Your task to perform on an android device: Open Chrome and go to settings Image 0: 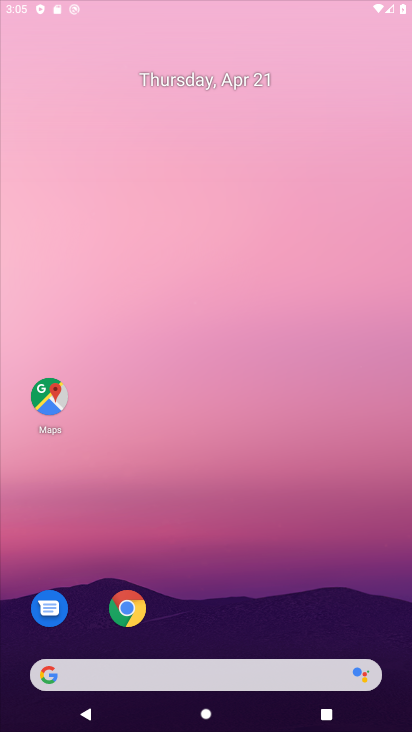
Step 0: click (259, 155)
Your task to perform on an android device: Open Chrome and go to settings Image 1: 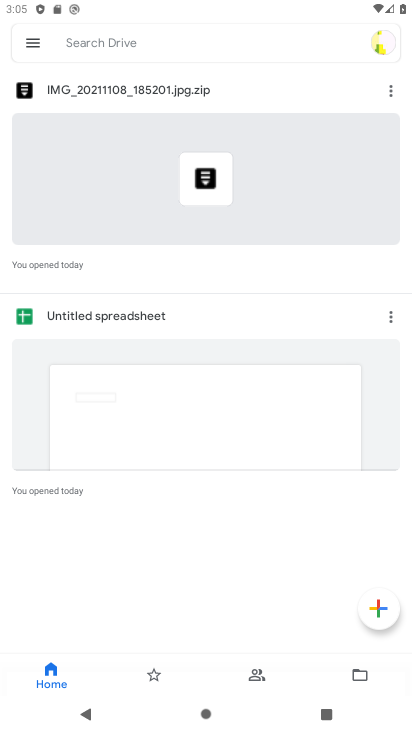
Step 1: press home button
Your task to perform on an android device: Open Chrome and go to settings Image 2: 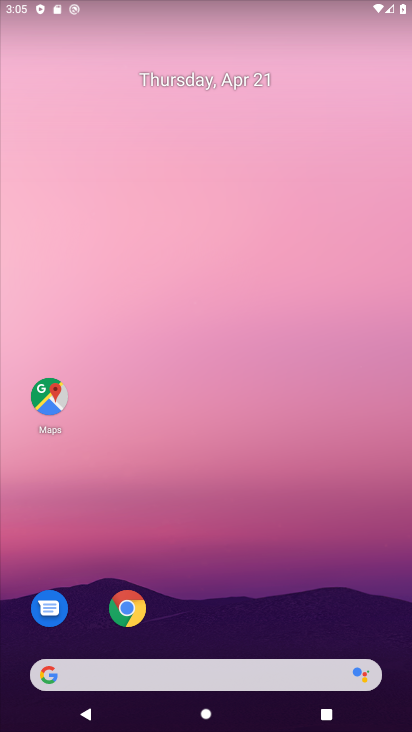
Step 2: drag from (272, 569) to (313, 249)
Your task to perform on an android device: Open Chrome and go to settings Image 3: 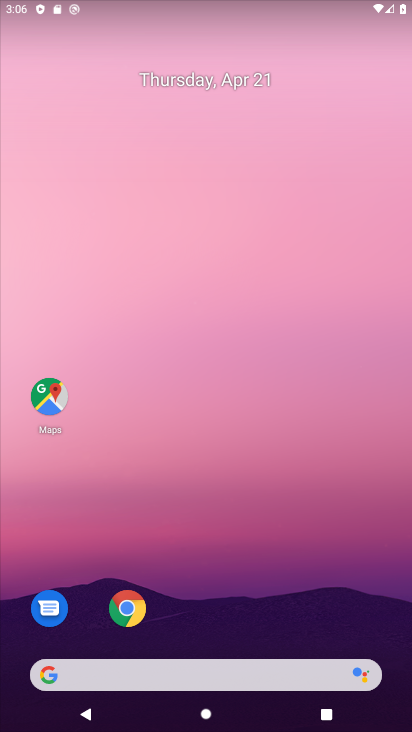
Step 3: drag from (248, 581) to (265, 129)
Your task to perform on an android device: Open Chrome and go to settings Image 4: 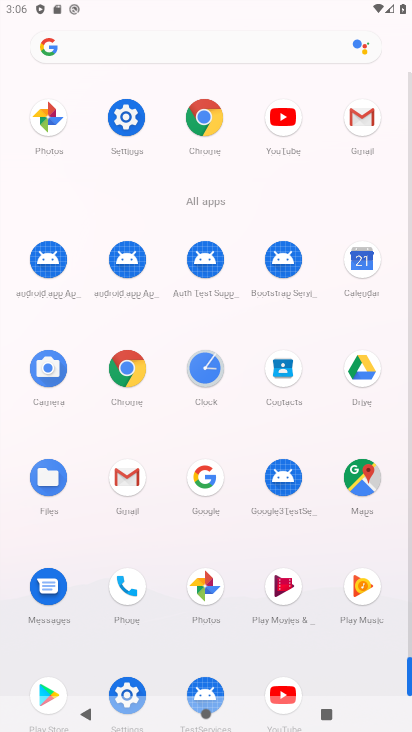
Step 4: click (198, 141)
Your task to perform on an android device: Open Chrome and go to settings Image 5: 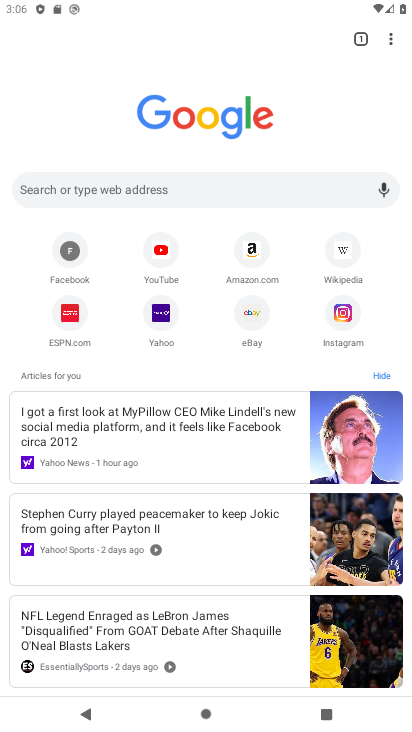
Step 5: click (388, 44)
Your task to perform on an android device: Open Chrome and go to settings Image 6: 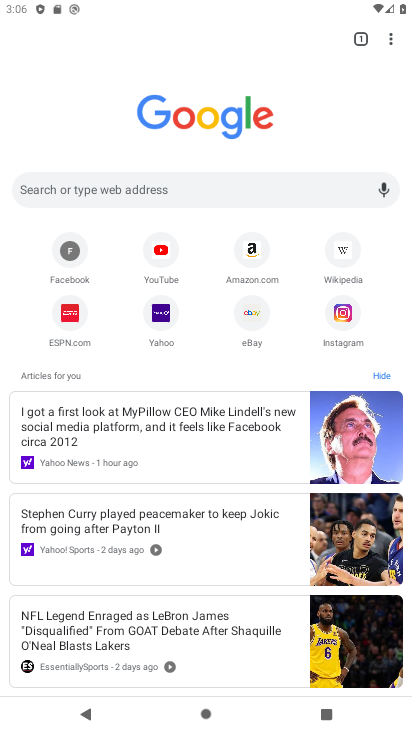
Step 6: click (394, 41)
Your task to perform on an android device: Open Chrome and go to settings Image 7: 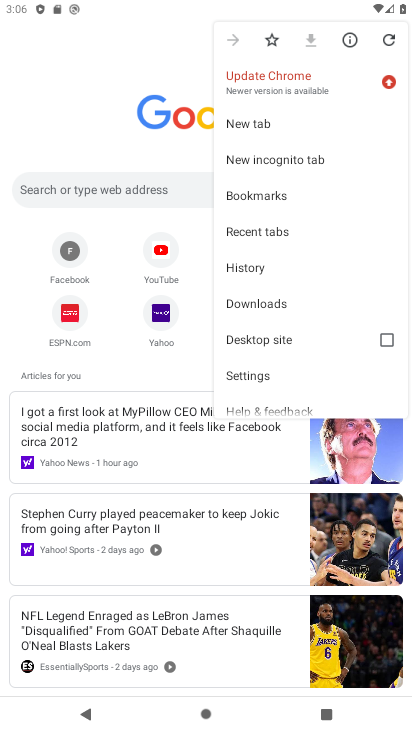
Step 7: click (248, 376)
Your task to perform on an android device: Open Chrome and go to settings Image 8: 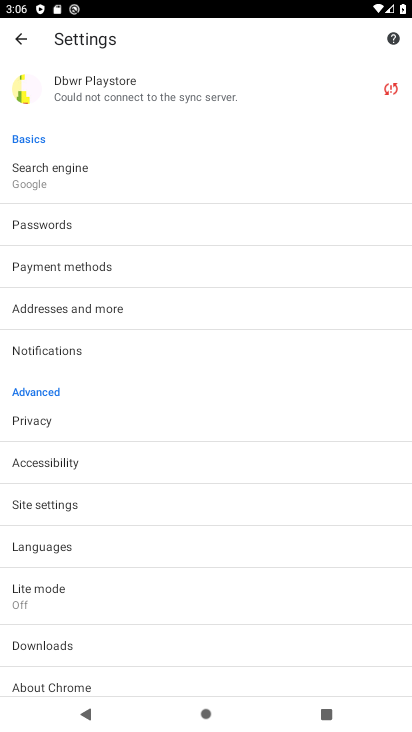
Step 8: task complete